Your task to perform on an android device: check storage Image 0: 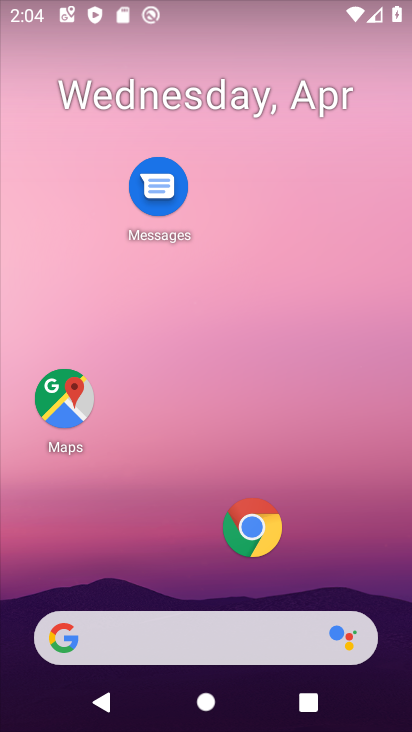
Step 0: drag from (87, 593) to (232, 3)
Your task to perform on an android device: check storage Image 1: 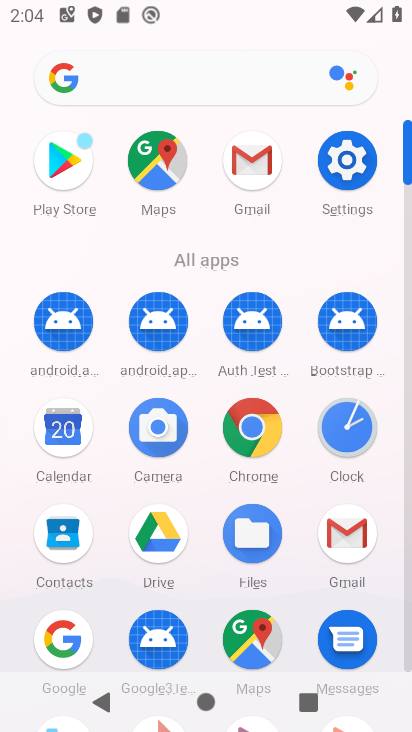
Step 1: click (336, 160)
Your task to perform on an android device: check storage Image 2: 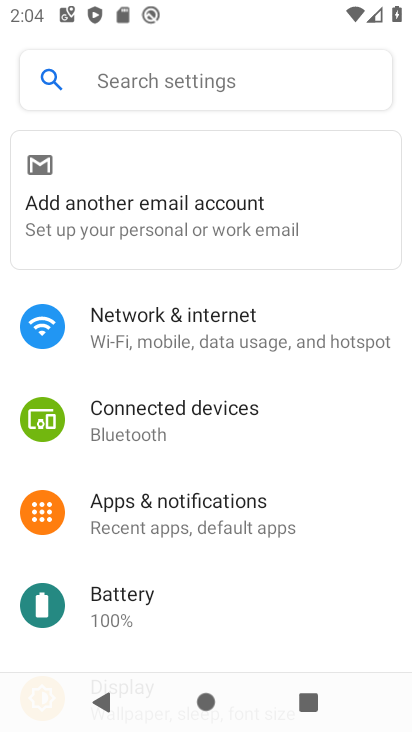
Step 2: drag from (227, 566) to (240, 346)
Your task to perform on an android device: check storage Image 3: 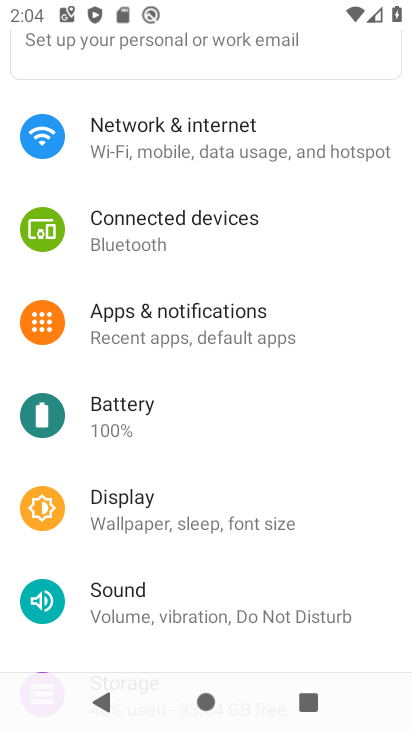
Step 3: drag from (185, 584) to (219, 379)
Your task to perform on an android device: check storage Image 4: 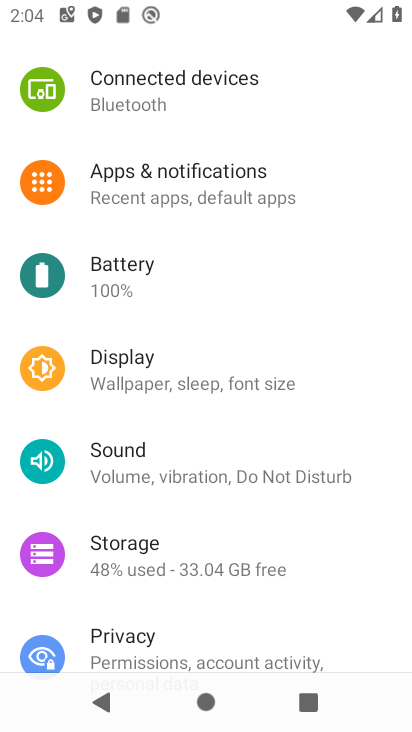
Step 4: click (155, 549)
Your task to perform on an android device: check storage Image 5: 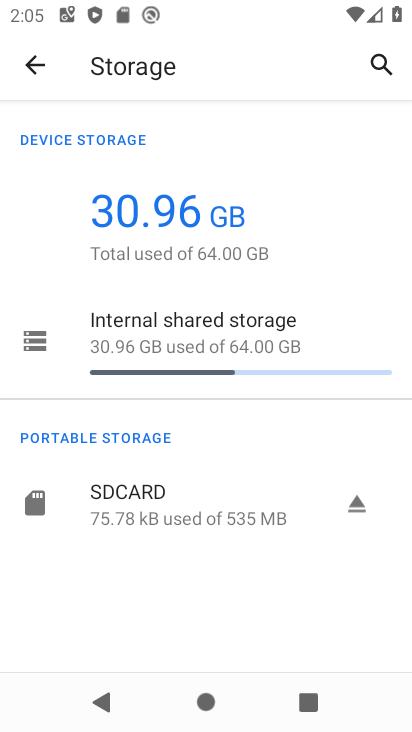
Step 5: task complete